Your task to perform on an android device: turn vacation reply on in the gmail app Image 0: 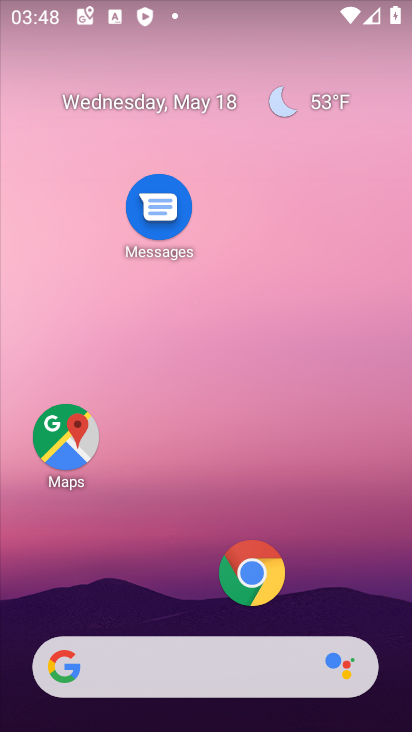
Step 0: drag from (184, 600) to (251, 188)
Your task to perform on an android device: turn vacation reply on in the gmail app Image 1: 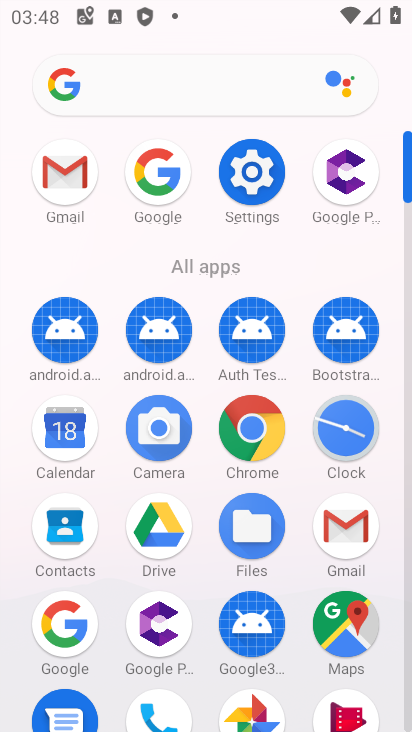
Step 1: click (72, 183)
Your task to perform on an android device: turn vacation reply on in the gmail app Image 2: 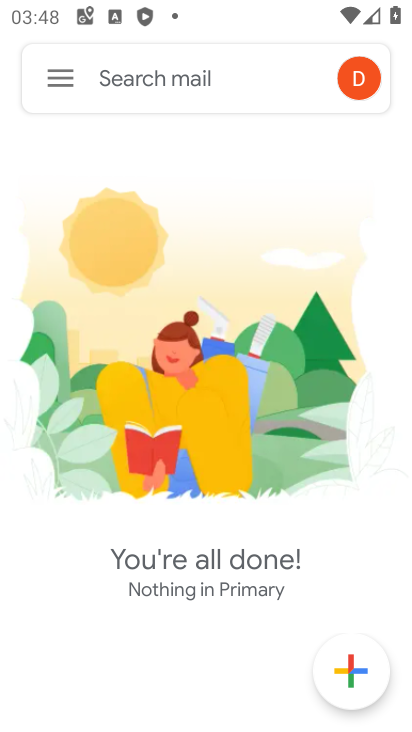
Step 2: click (65, 89)
Your task to perform on an android device: turn vacation reply on in the gmail app Image 3: 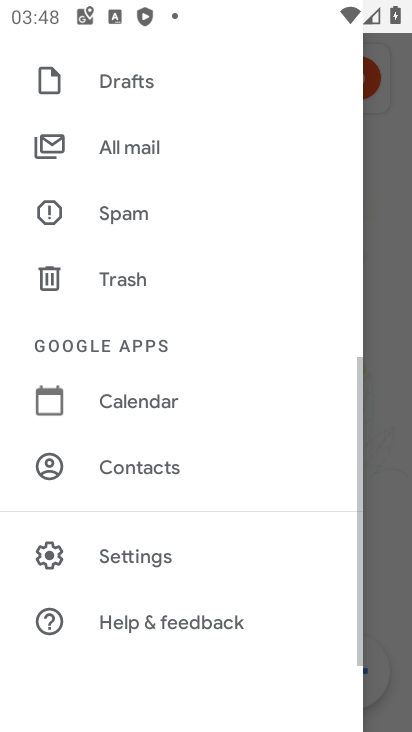
Step 3: click (160, 552)
Your task to perform on an android device: turn vacation reply on in the gmail app Image 4: 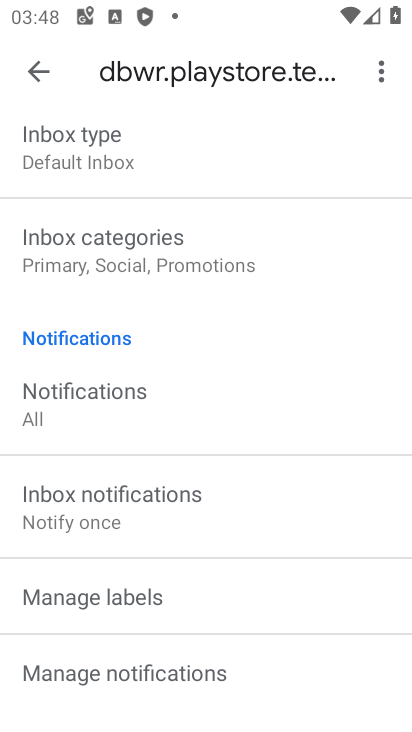
Step 4: drag from (218, 597) to (278, 273)
Your task to perform on an android device: turn vacation reply on in the gmail app Image 5: 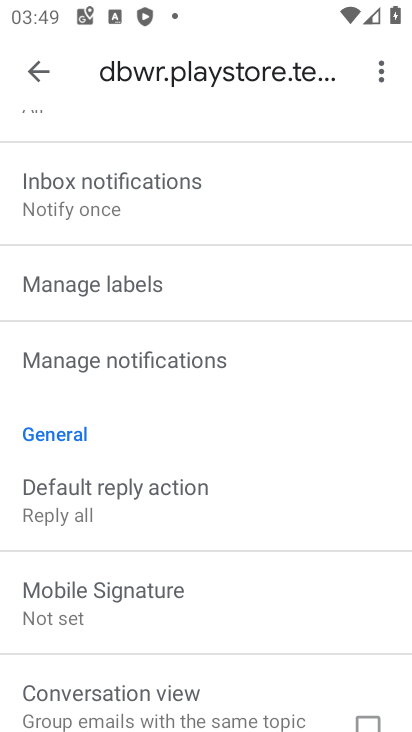
Step 5: drag from (211, 629) to (277, 275)
Your task to perform on an android device: turn vacation reply on in the gmail app Image 6: 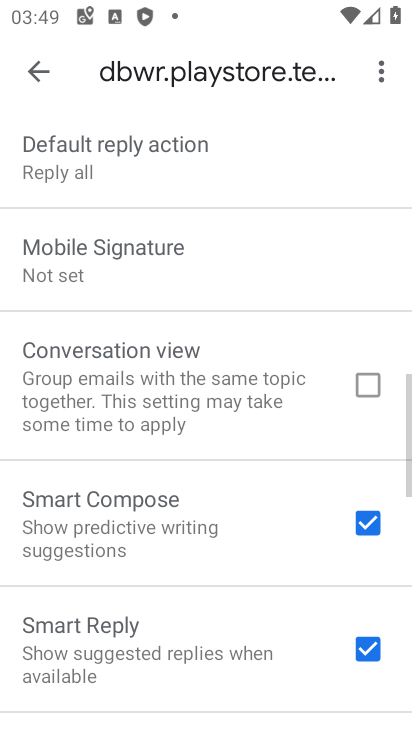
Step 6: drag from (255, 578) to (273, 230)
Your task to perform on an android device: turn vacation reply on in the gmail app Image 7: 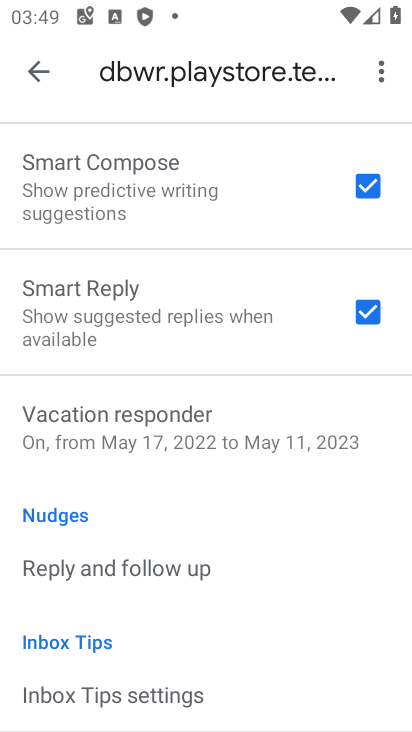
Step 7: click (253, 450)
Your task to perform on an android device: turn vacation reply on in the gmail app Image 8: 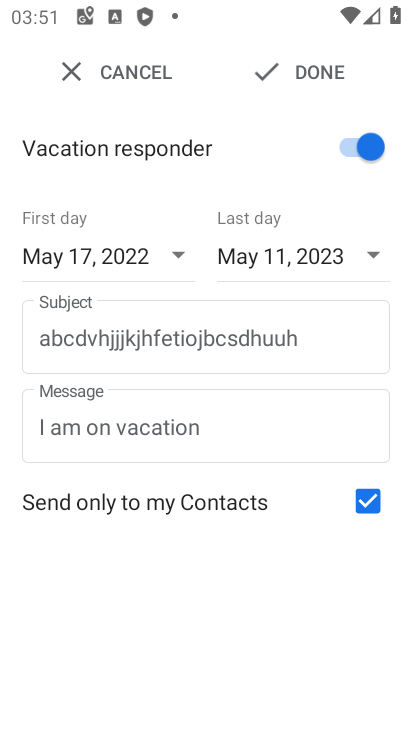
Step 8: task complete